Your task to perform on an android device: check data usage Image 0: 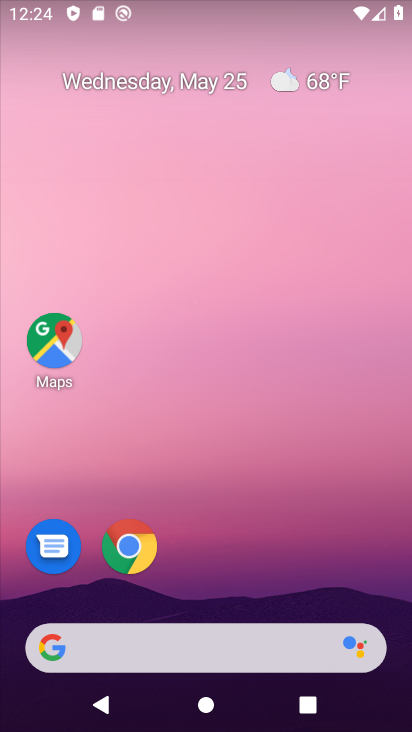
Step 0: drag from (238, 543) to (252, 65)
Your task to perform on an android device: check data usage Image 1: 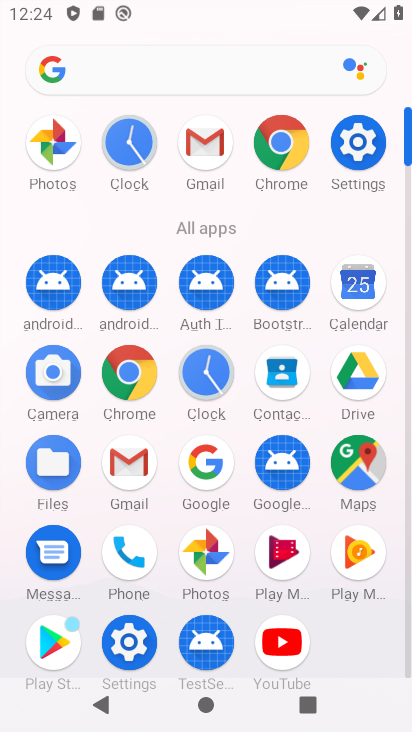
Step 1: click (360, 168)
Your task to perform on an android device: check data usage Image 2: 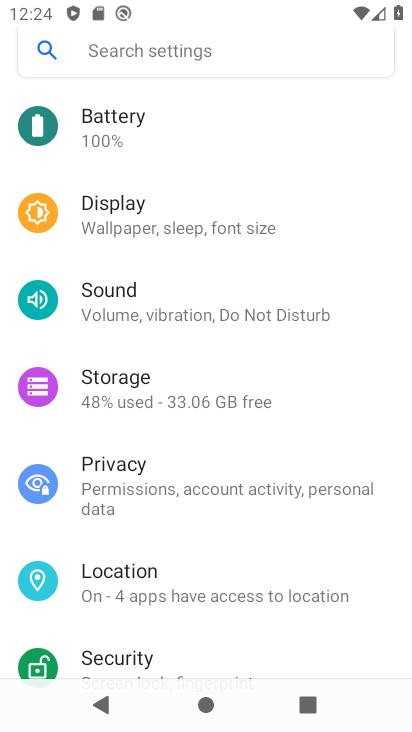
Step 2: drag from (236, 168) to (164, 635)
Your task to perform on an android device: check data usage Image 3: 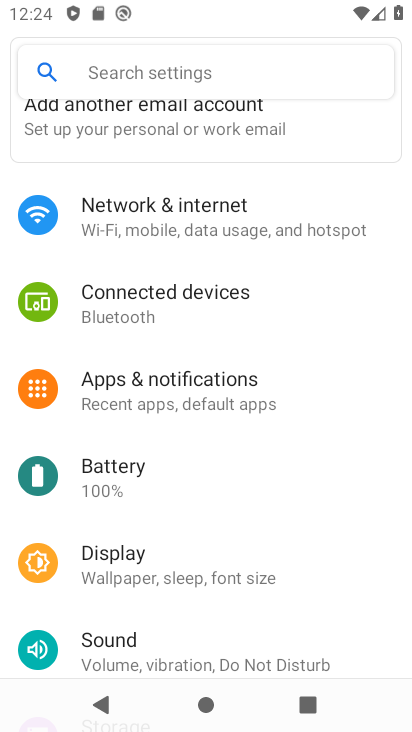
Step 3: click (171, 244)
Your task to perform on an android device: check data usage Image 4: 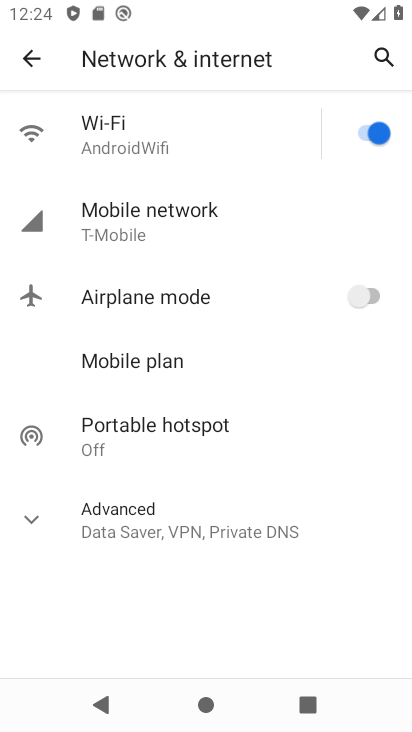
Step 4: click (278, 231)
Your task to perform on an android device: check data usage Image 5: 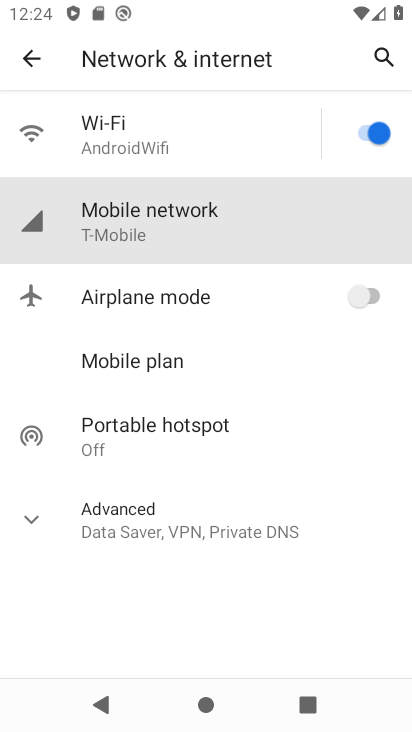
Step 5: task complete